Your task to perform on an android device: snooze an email in the gmail app Image 0: 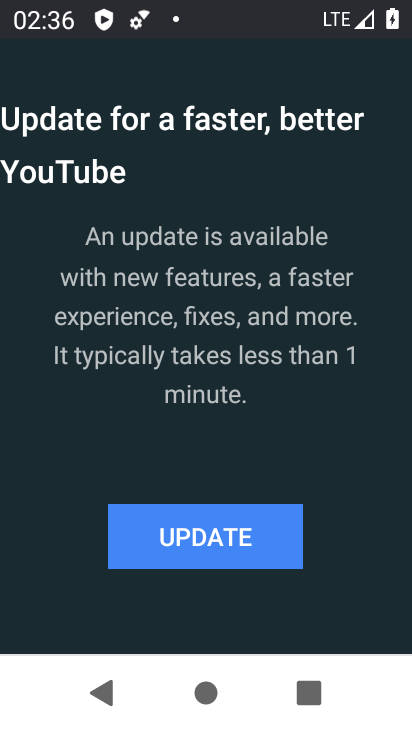
Step 0: press home button
Your task to perform on an android device: snooze an email in the gmail app Image 1: 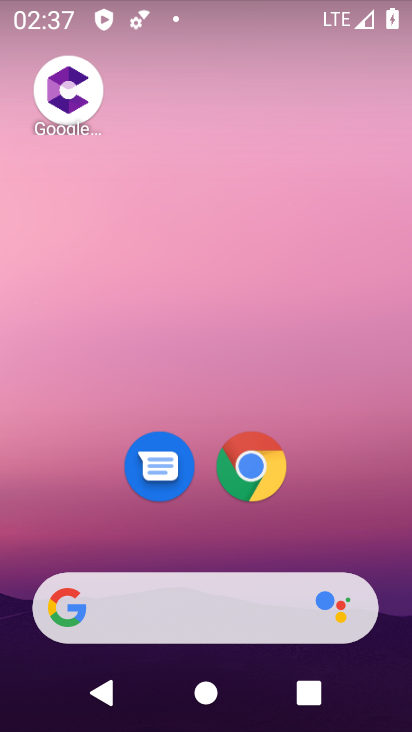
Step 1: click (246, 7)
Your task to perform on an android device: snooze an email in the gmail app Image 2: 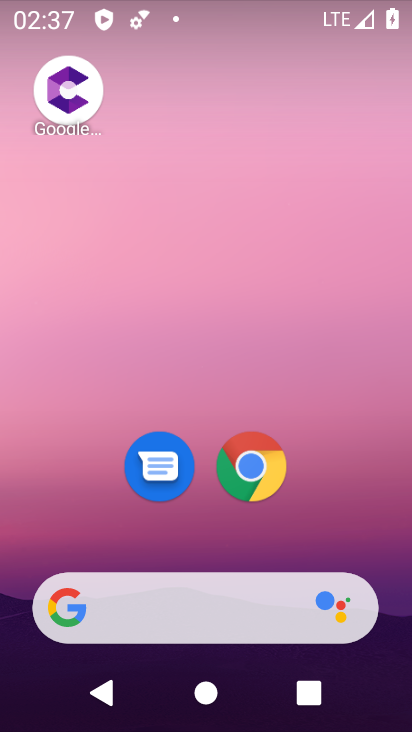
Step 2: drag from (181, 549) to (225, 262)
Your task to perform on an android device: snooze an email in the gmail app Image 3: 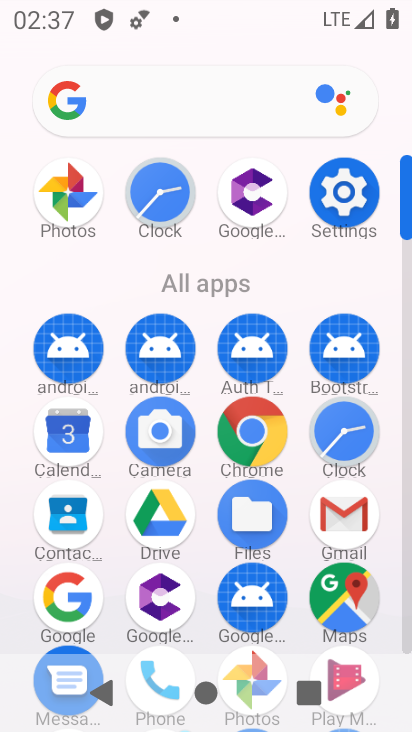
Step 3: click (358, 501)
Your task to perform on an android device: snooze an email in the gmail app Image 4: 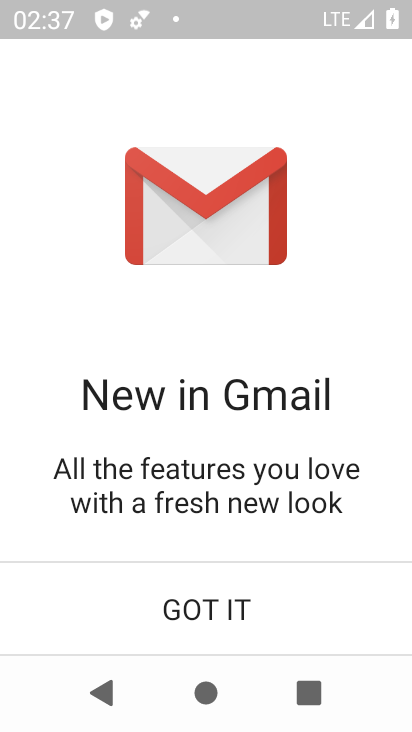
Step 4: click (243, 603)
Your task to perform on an android device: snooze an email in the gmail app Image 5: 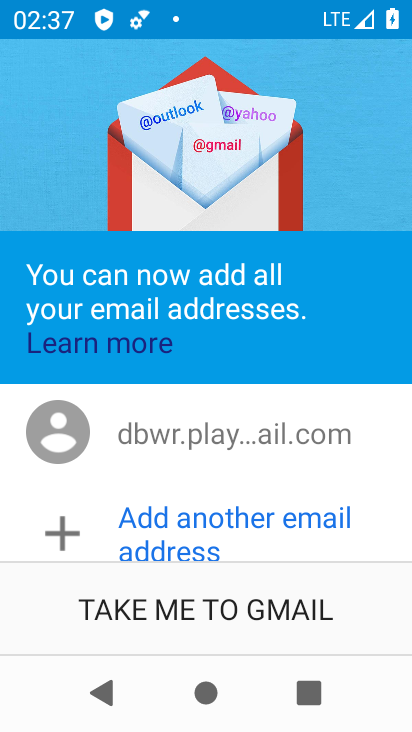
Step 5: click (245, 604)
Your task to perform on an android device: snooze an email in the gmail app Image 6: 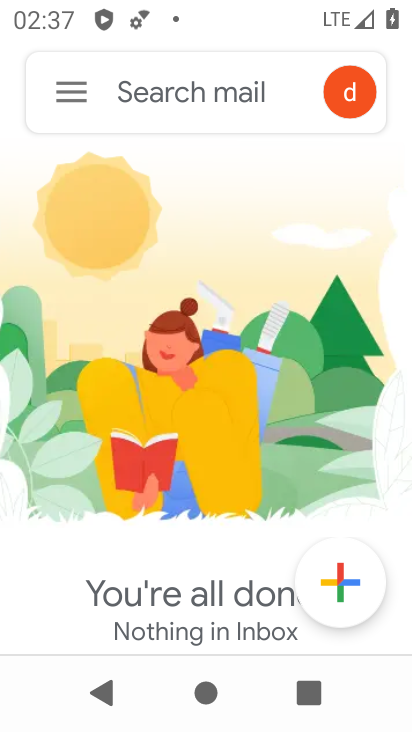
Step 6: click (76, 95)
Your task to perform on an android device: snooze an email in the gmail app Image 7: 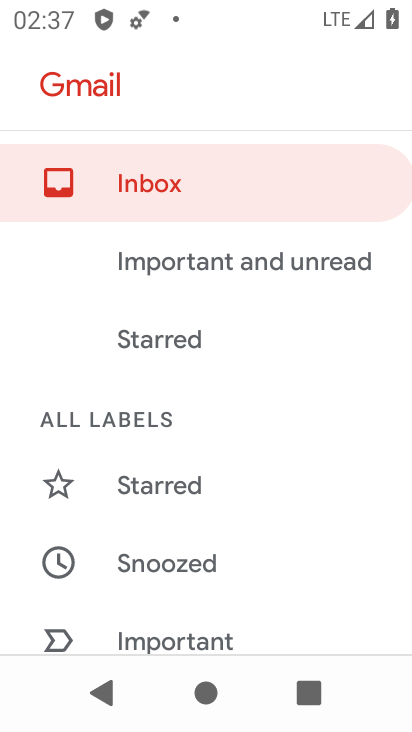
Step 7: drag from (158, 136) to (141, 489)
Your task to perform on an android device: snooze an email in the gmail app Image 8: 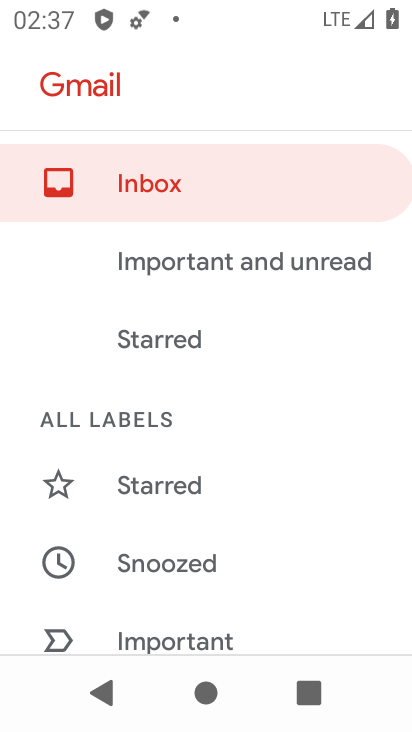
Step 8: drag from (211, 347) to (197, 505)
Your task to perform on an android device: snooze an email in the gmail app Image 9: 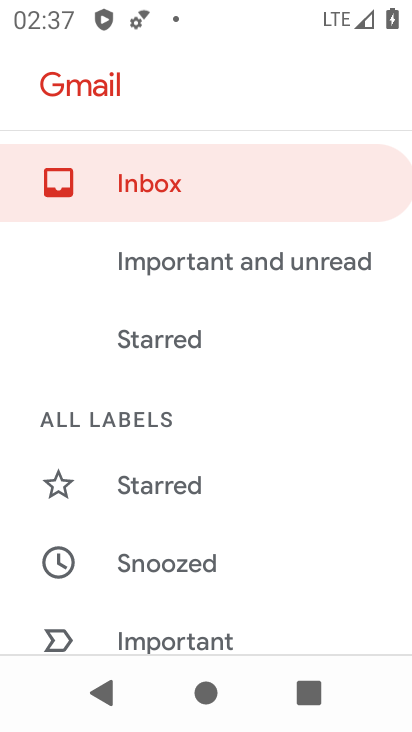
Step 9: drag from (203, 355) to (174, 470)
Your task to perform on an android device: snooze an email in the gmail app Image 10: 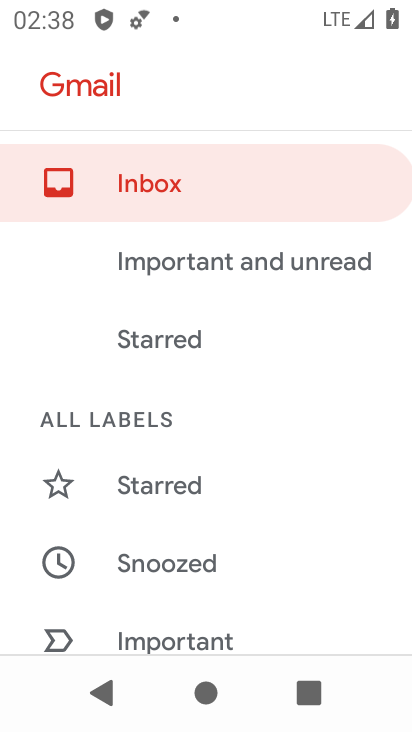
Step 10: drag from (137, 564) to (132, 263)
Your task to perform on an android device: snooze an email in the gmail app Image 11: 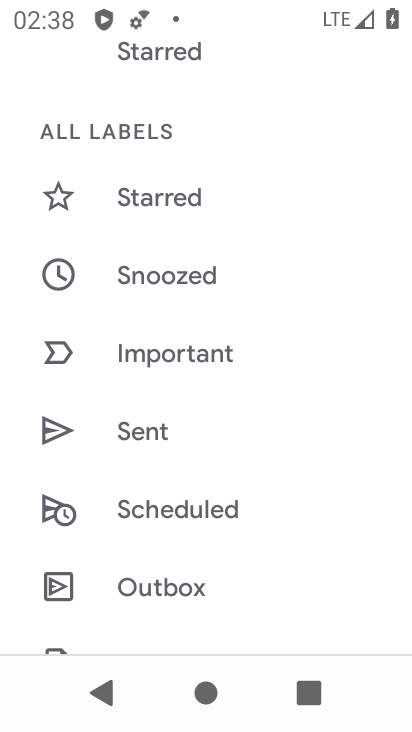
Step 11: drag from (186, 539) to (188, 175)
Your task to perform on an android device: snooze an email in the gmail app Image 12: 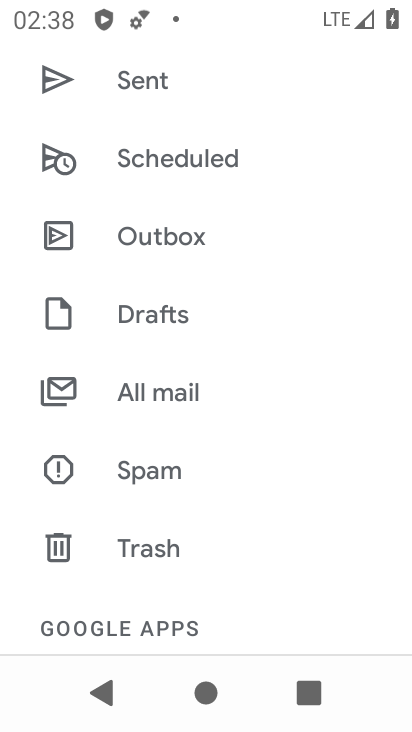
Step 12: click (182, 392)
Your task to perform on an android device: snooze an email in the gmail app Image 13: 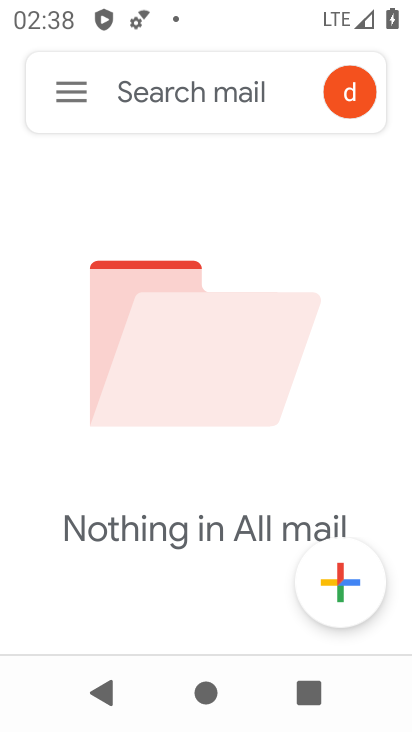
Step 13: task complete